Your task to perform on an android device: Go to internet settings Image 0: 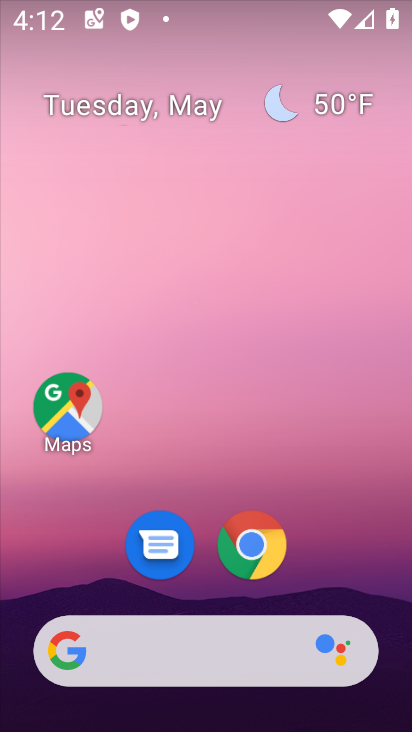
Step 0: drag from (315, 583) to (334, 7)
Your task to perform on an android device: Go to internet settings Image 1: 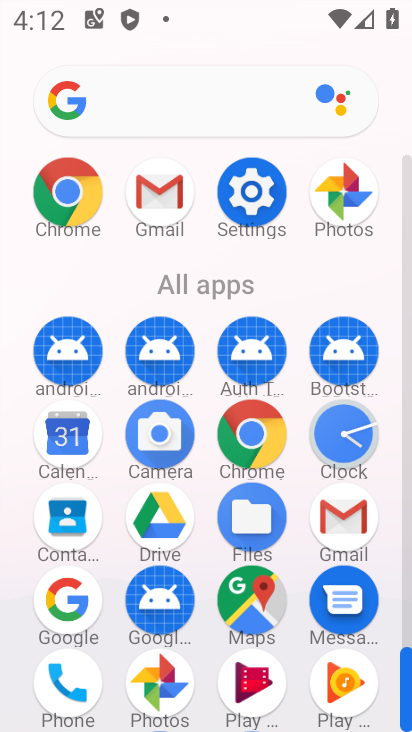
Step 1: click (268, 180)
Your task to perform on an android device: Go to internet settings Image 2: 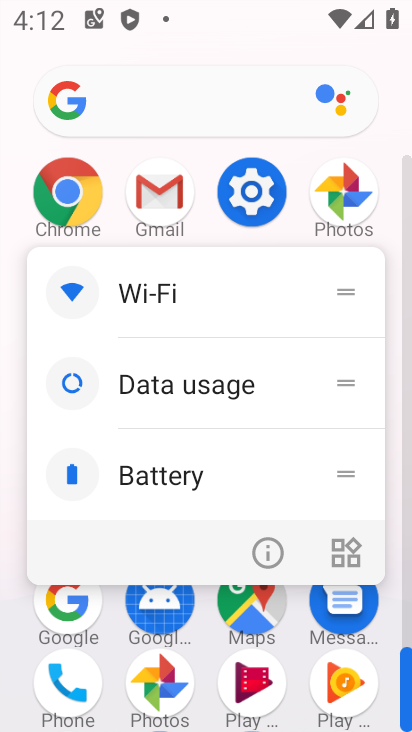
Step 2: click (240, 209)
Your task to perform on an android device: Go to internet settings Image 3: 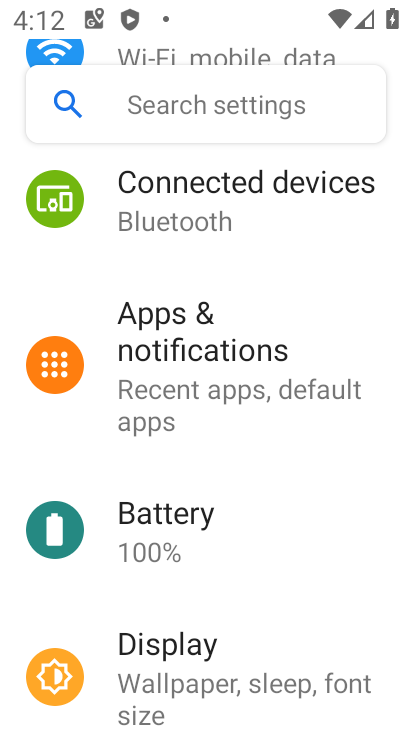
Step 3: drag from (240, 243) to (232, 545)
Your task to perform on an android device: Go to internet settings Image 4: 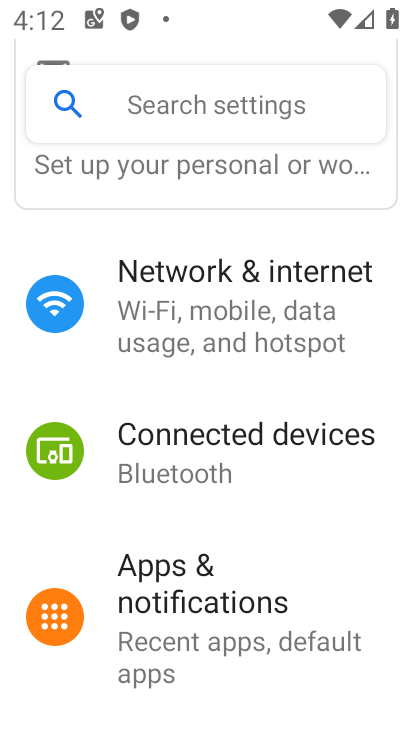
Step 4: click (277, 323)
Your task to perform on an android device: Go to internet settings Image 5: 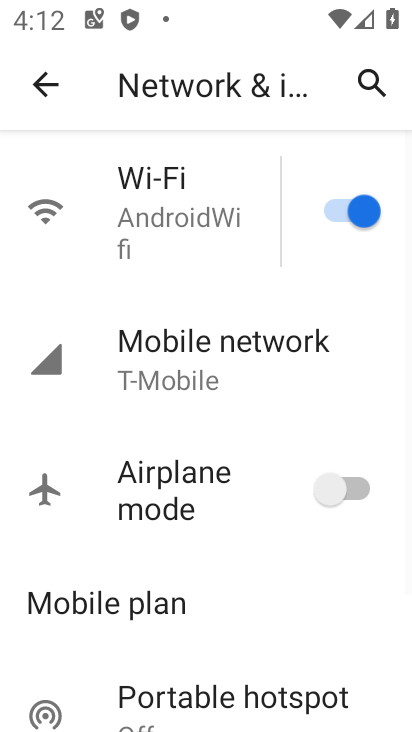
Step 5: task complete